Your task to perform on an android device: add a contact in the contacts app Image 0: 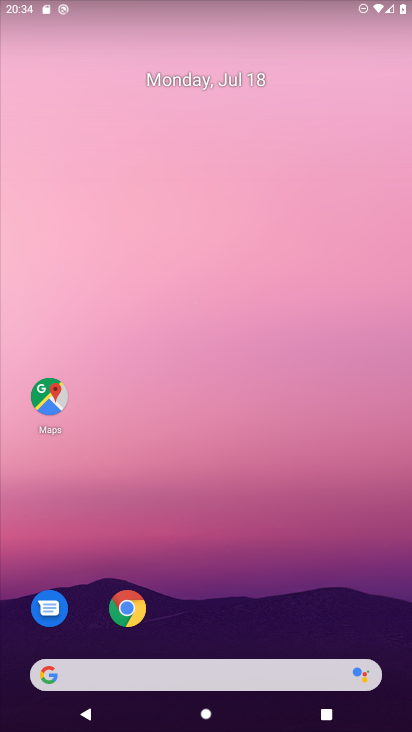
Step 0: drag from (248, 601) to (252, 93)
Your task to perform on an android device: add a contact in the contacts app Image 1: 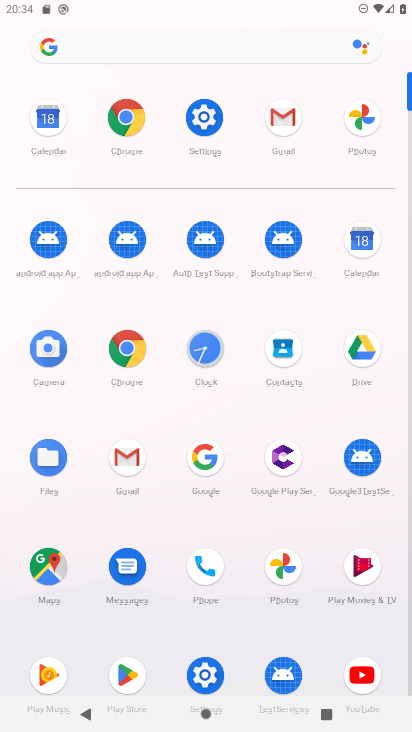
Step 1: click (284, 351)
Your task to perform on an android device: add a contact in the contacts app Image 2: 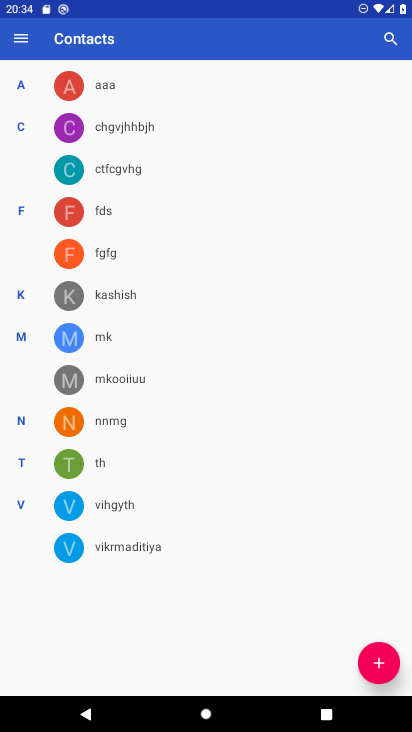
Step 2: click (375, 664)
Your task to perform on an android device: add a contact in the contacts app Image 3: 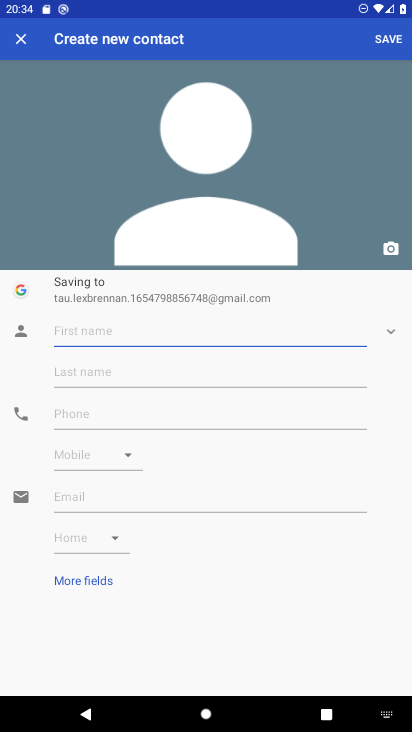
Step 3: click (149, 341)
Your task to perform on an android device: add a contact in the contacts app Image 4: 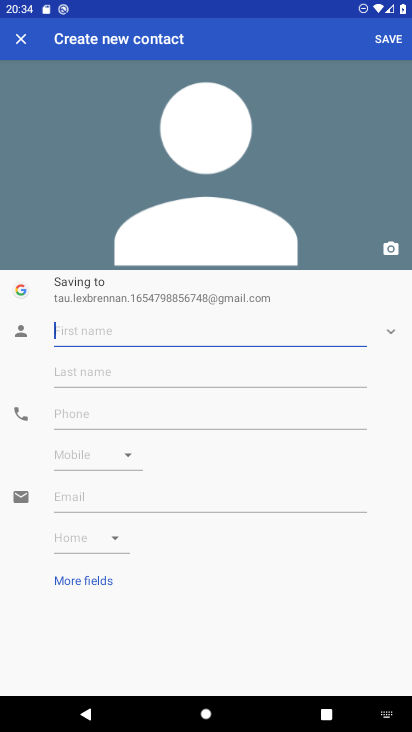
Step 4: type "yjfjhfh"
Your task to perform on an android device: add a contact in the contacts app Image 5: 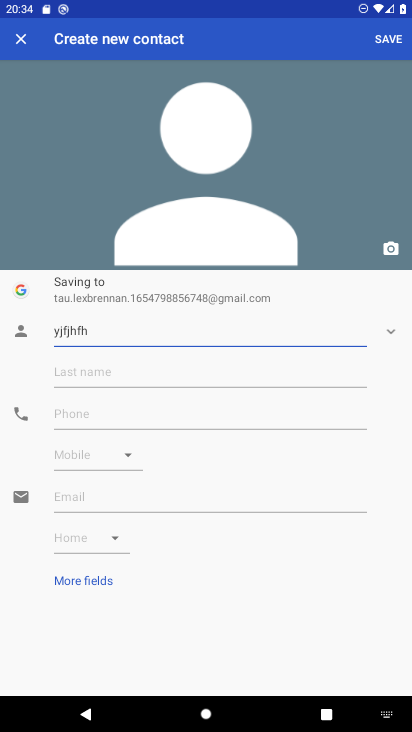
Step 5: click (177, 415)
Your task to perform on an android device: add a contact in the contacts app Image 6: 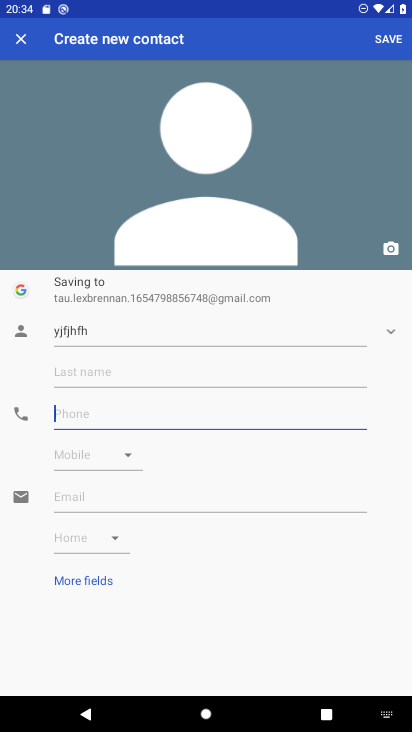
Step 6: type "8758758778"
Your task to perform on an android device: add a contact in the contacts app Image 7: 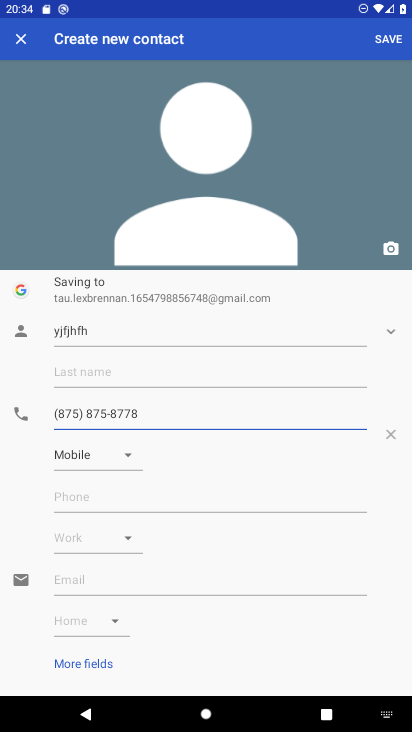
Step 7: click (385, 37)
Your task to perform on an android device: add a contact in the contacts app Image 8: 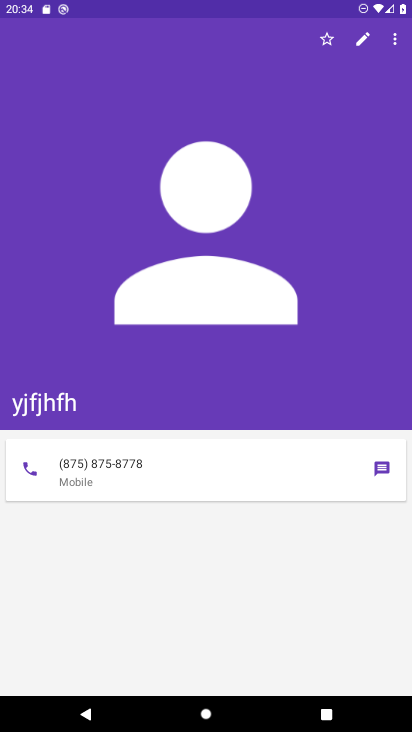
Step 8: task complete